Your task to perform on an android device: visit the assistant section in the google photos Image 0: 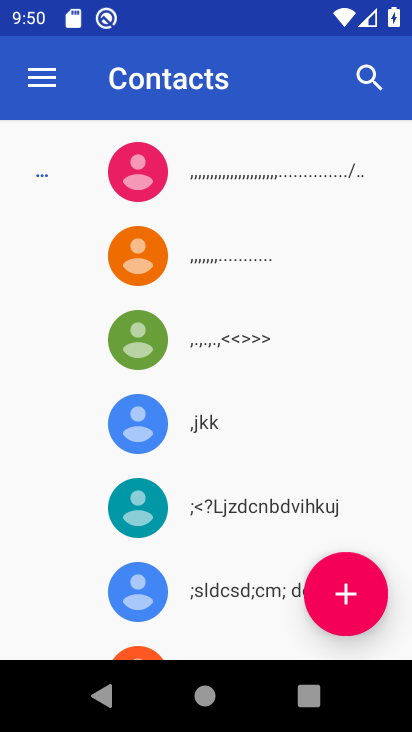
Step 0: press back button
Your task to perform on an android device: visit the assistant section in the google photos Image 1: 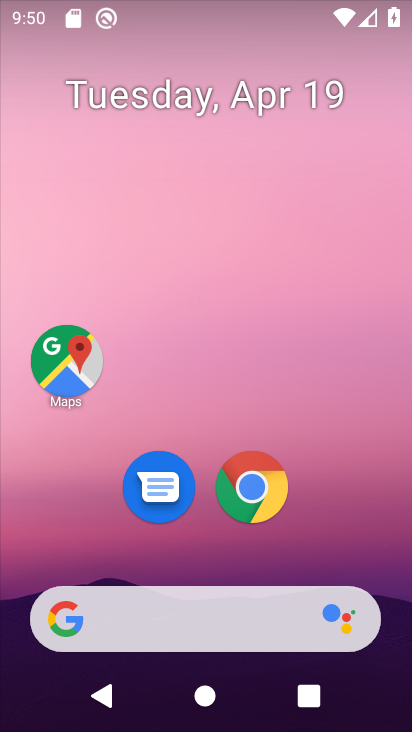
Step 1: drag from (331, 534) to (301, 14)
Your task to perform on an android device: visit the assistant section in the google photos Image 2: 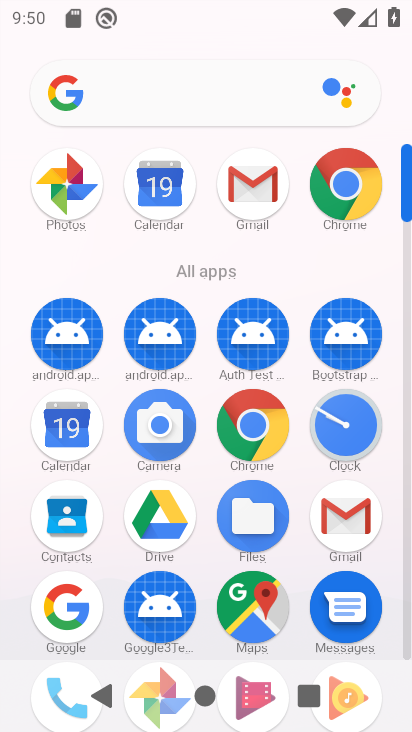
Step 2: drag from (9, 588) to (26, 278)
Your task to perform on an android device: visit the assistant section in the google photos Image 3: 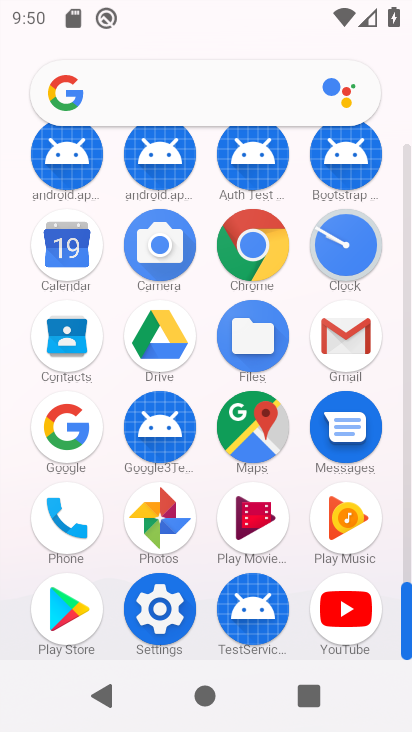
Step 3: click (158, 522)
Your task to perform on an android device: visit the assistant section in the google photos Image 4: 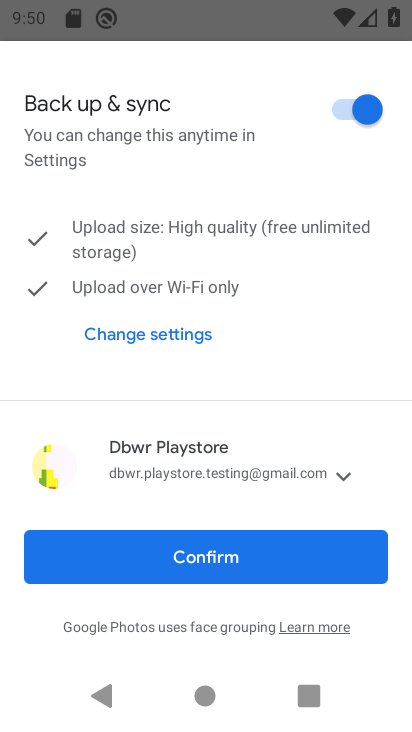
Step 4: click (176, 553)
Your task to perform on an android device: visit the assistant section in the google photos Image 5: 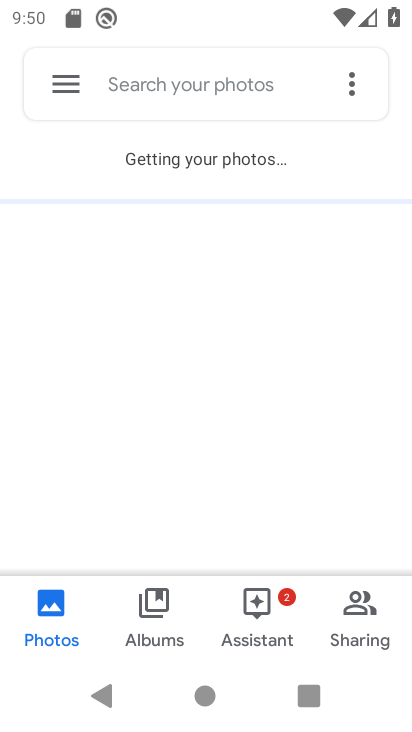
Step 5: click (67, 79)
Your task to perform on an android device: visit the assistant section in the google photos Image 6: 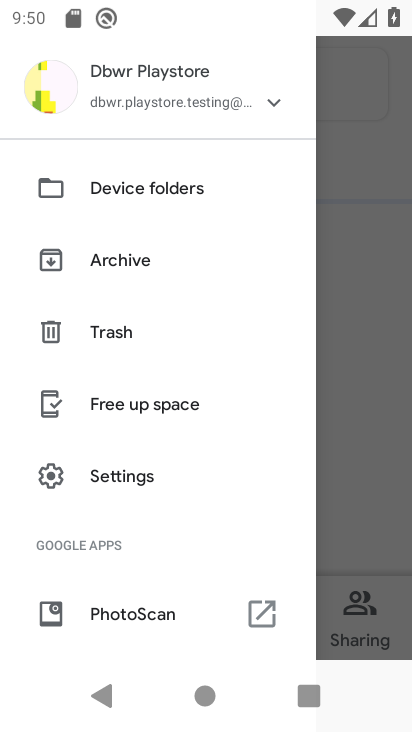
Step 6: drag from (200, 457) to (233, 91)
Your task to perform on an android device: visit the assistant section in the google photos Image 7: 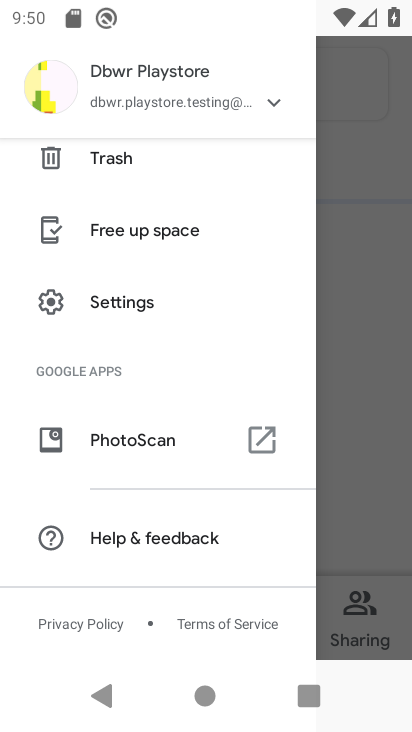
Step 7: click (151, 305)
Your task to perform on an android device: visit the assistant section in the google photos Image 8: 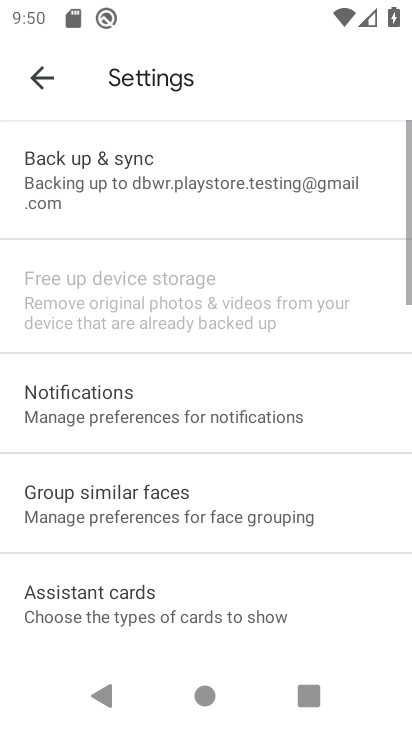
Step 8: drag from (222, 435) to (256, 160)
Your task to perform on an android device: visit the assistant section in the google photos Image 9: 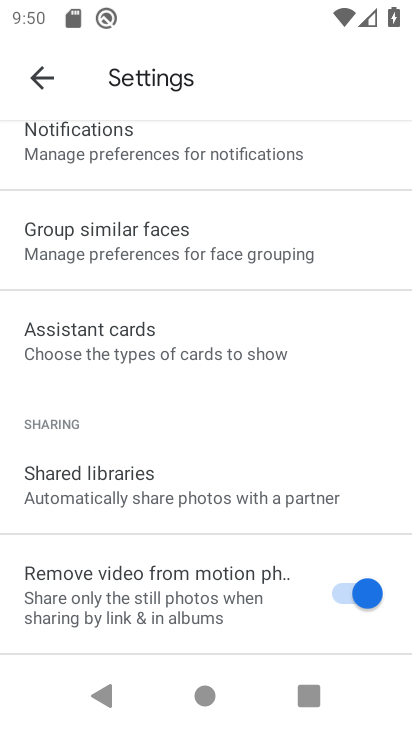
Step 9: drag from (239, 511) to (282, 123)
Your task to perform on an android device: visit the assistant section in the google photos Image 10: 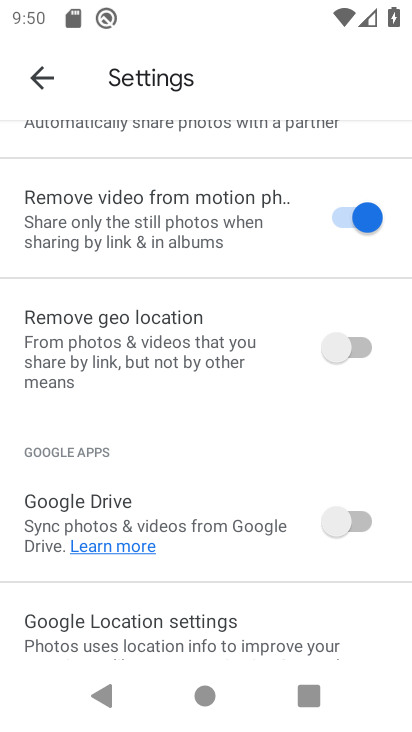
Step 10: drag from (207, 515) to (240, 151)
Your task to perform on an android device: visit the assistant section in the google photos Image 11: 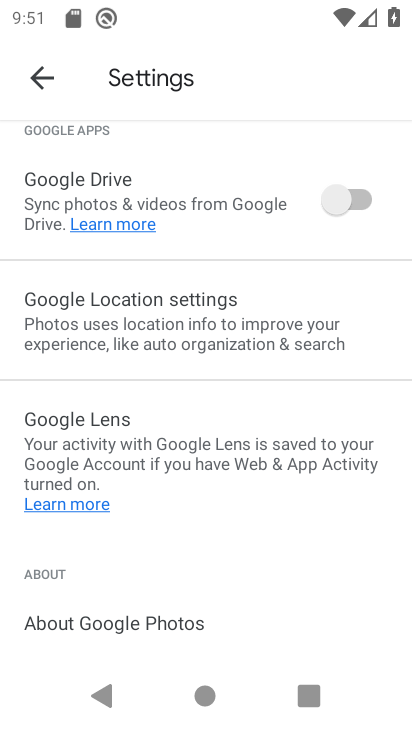
Step 11: drag from (213, 185) to (162, 583)
Your task to perform on an android device: visit the assistant section in the google photos Image 12: 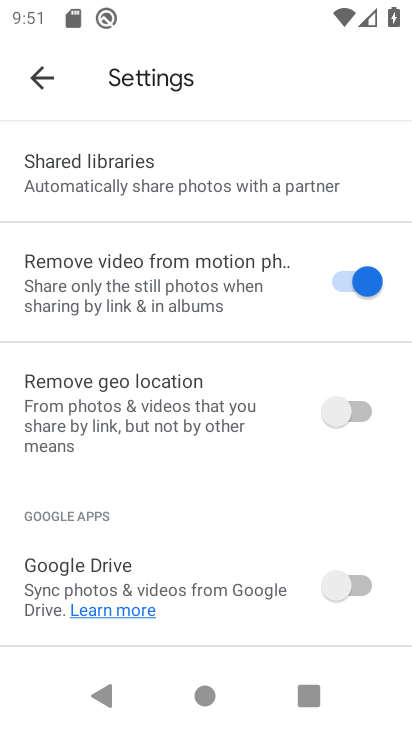
Step 12: drag from (201, 232) to (175, 562)
Your task to perform on an android device: visit the assistant section in the google photos Image 13: 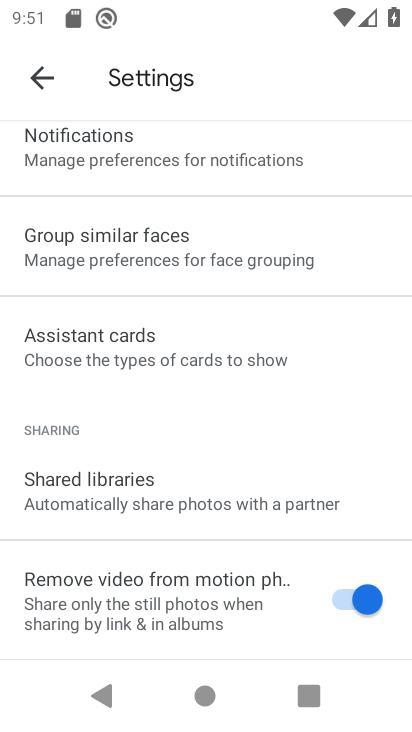
Step 13: drag from (201, 217) to (174, 541)
Your task to perform on an android device: visit the assistant section in the google photos Image 14: 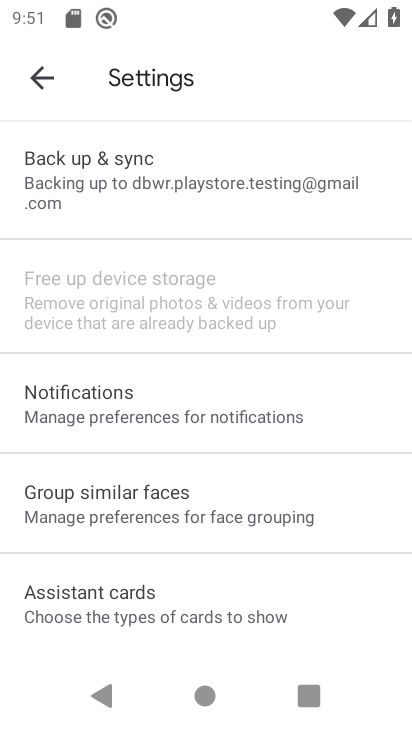
Step 14: drag from (220, 385) to (254, 120)
Your task to perform on an android device: visit the assistant section in the google photos Image 15: 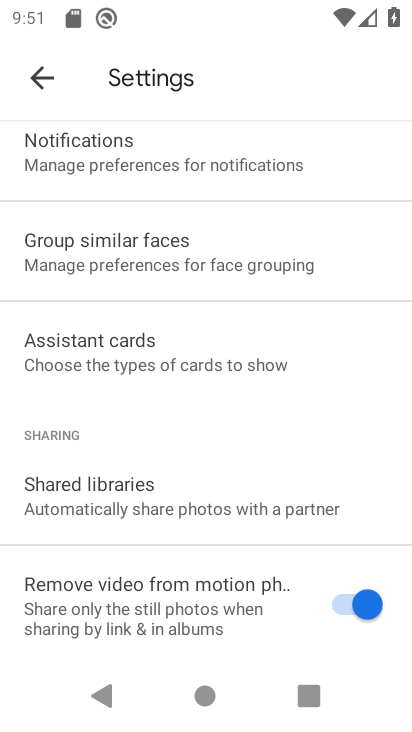
Step 15: drag from (240, 236) to (228, 493)
Your task to perform on an android device: visit the assistant section in the google photos Image 16: 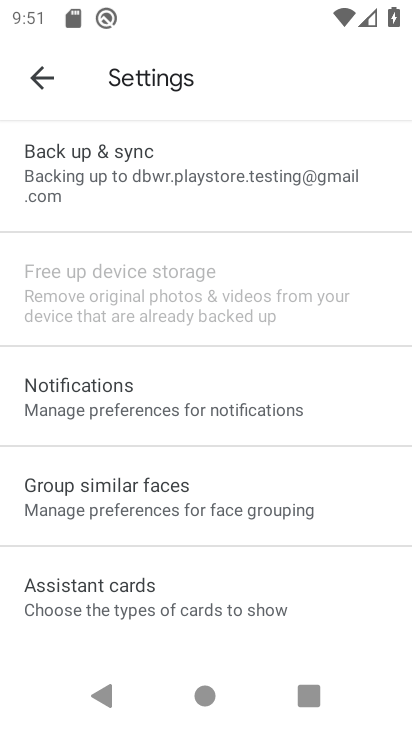
Step 16: drag from (189, 572) to (251, 186)
Your task to perform on an android device: visit the assistant section in the google photos Image 17: 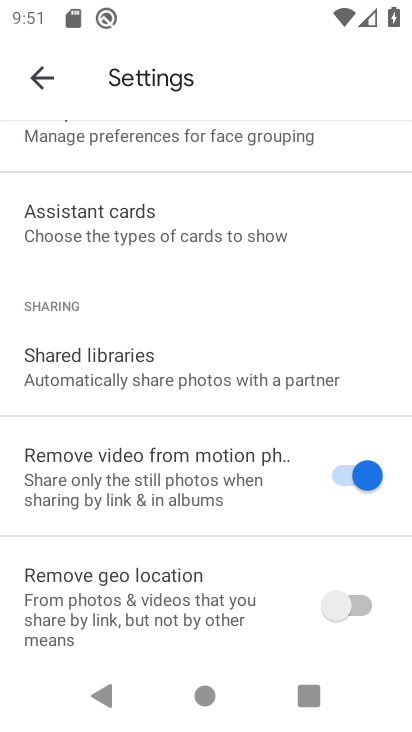
Step 17: drag from (203, 172) to (174, 482)
Your task to perform on an android device: visit the assistant section in the google photos Image 18: 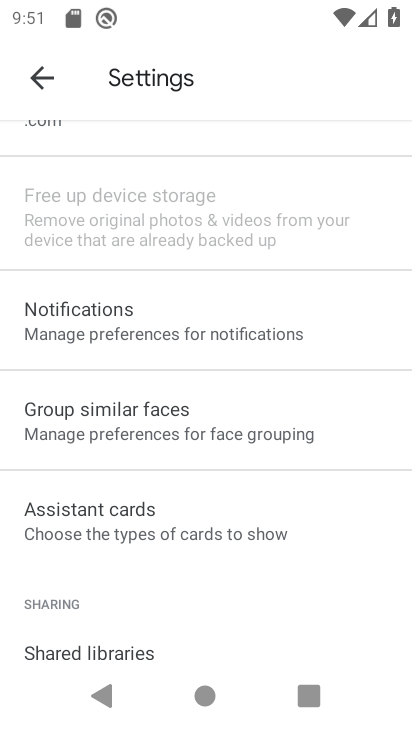
Step 18: drag from (203, 197) to (194, 598)
Your task to perform on an android device: visit the assistant section in the google photos Image 19: 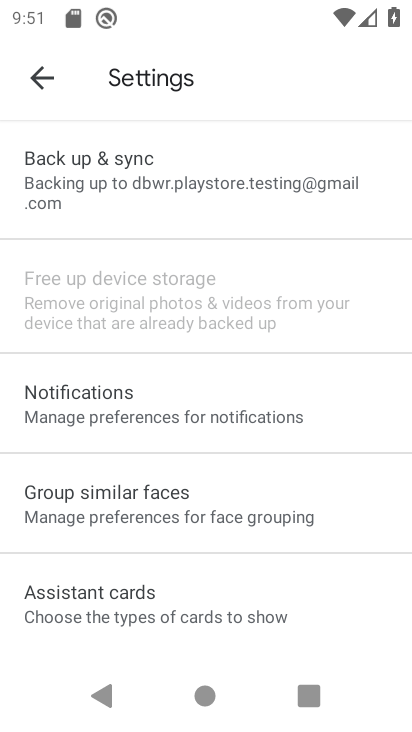
Step 19: click (54, 81)
Your task to perform on an android device: visit the assistant section in the google photos Image 20: 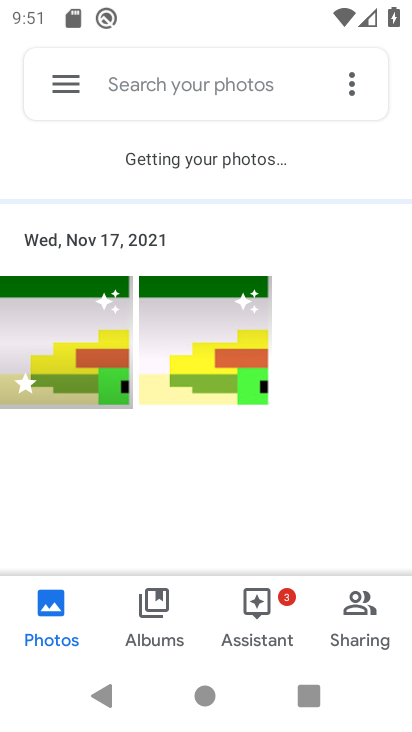
Step 20: click (257, 592)
Your task to perform on an android device: visit the assistant section in the google photos Image 21: 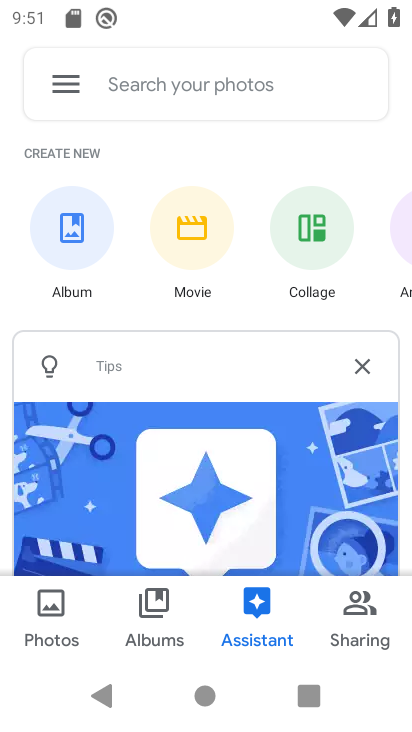
Step 21: task complete